Your task to perform on an android device: add a contact Image 0: 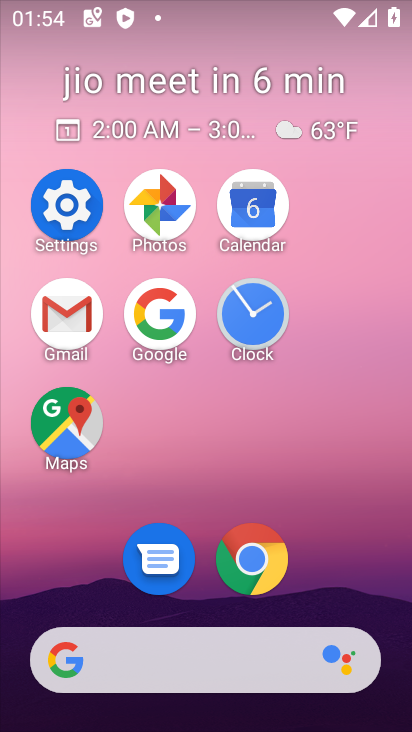
Step 0: drag from (322, 527) to (350, 147)
Your task to perform on an android device: add a contact Image 1: 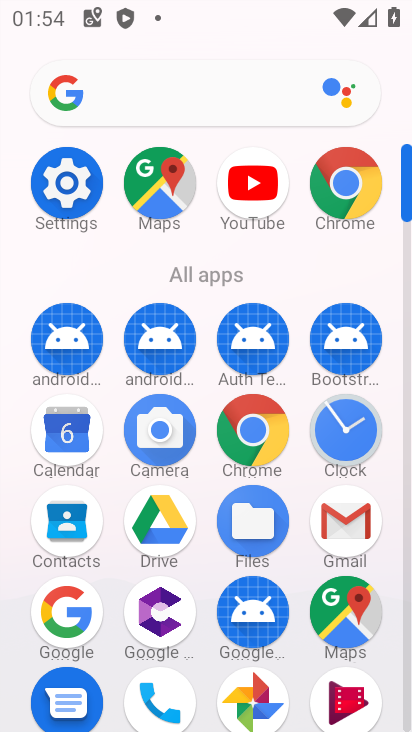
Step 1: click (72, 519)
Your task to perform on an android device: add a contact Image 2: 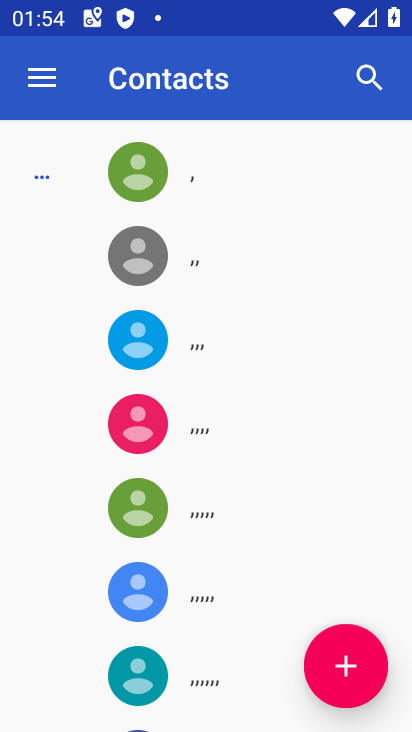
Step 2: click (337, 662)
Your task to perform on an android device: add a contact Image 3: 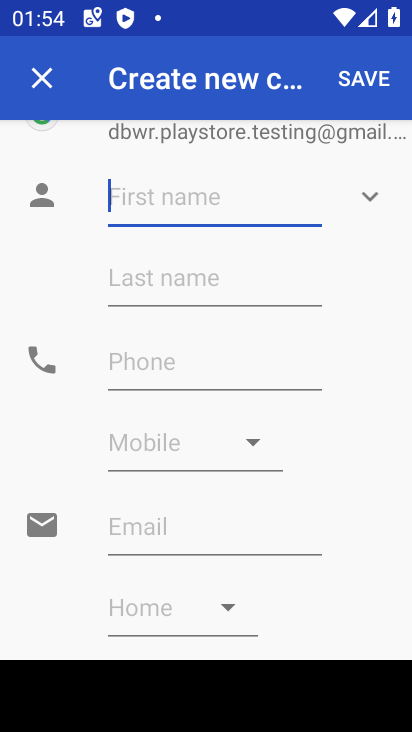
Step 3: type "yyuu"
Your task to perform on an android device: add a contact Image 4: 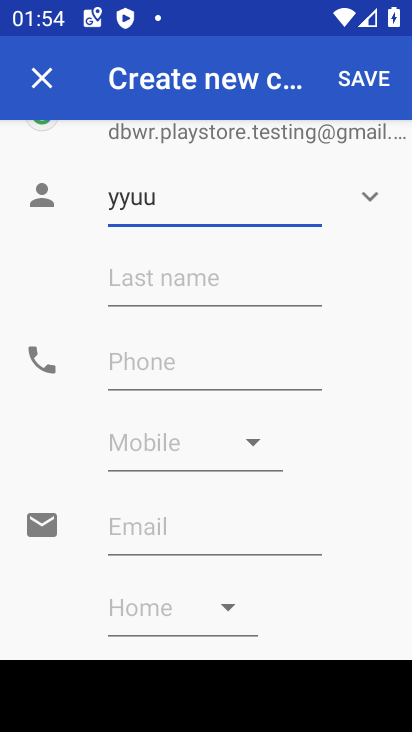
Step 4: click (219, 367)
Your task to perform on an android device: add a contact Image 5: 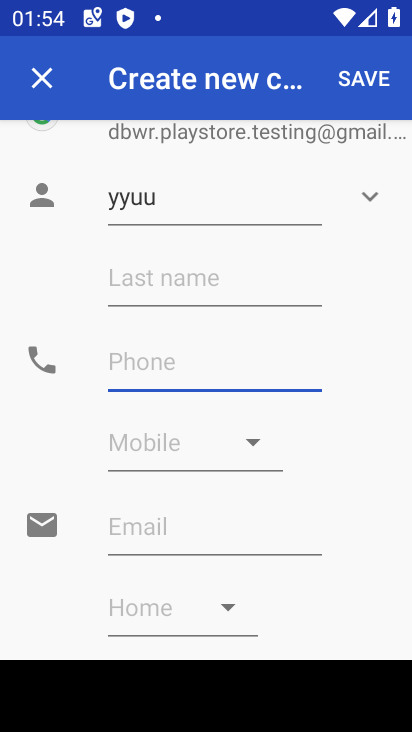
Step 5: type "0099887767"
Your task to perform on an android device: add a contact Image 6: 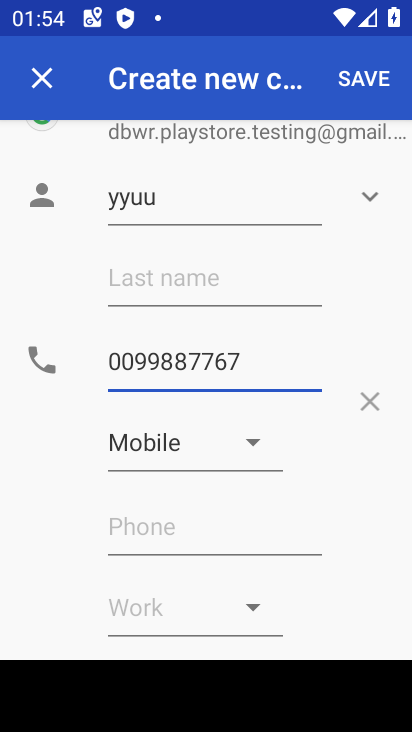
Step 6: click (364, 66)
Your task to perform on an android device: add a contact Image 7: 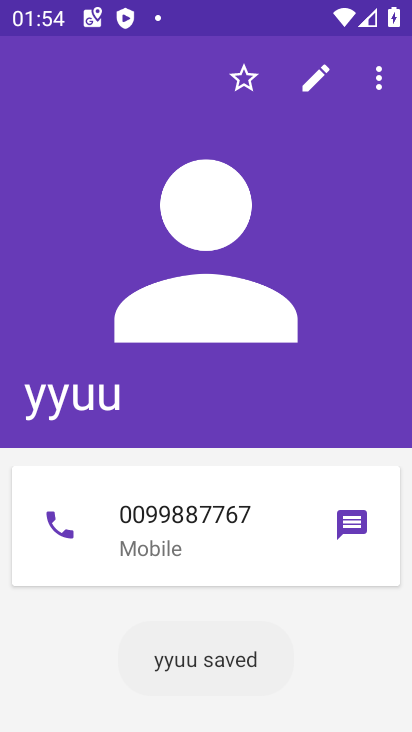
Step 7: task complete